Your task to perform on an android device: View the shopping cart on newegg.com. Add "razer naga" to the cart on newegg.com, then select checkout. Image 0: 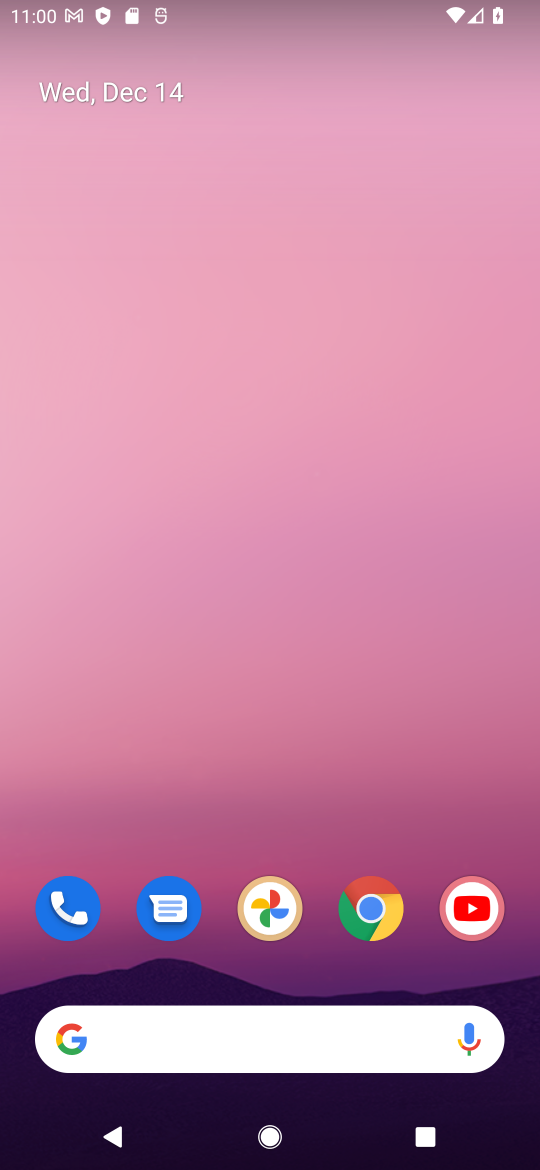
Step 0: click (372, 926)
Your task to perform on an android device: View the shopping cart on newegg.com. Add "razer naga" to the cart on newegg.com, then select checkout. Image 1: 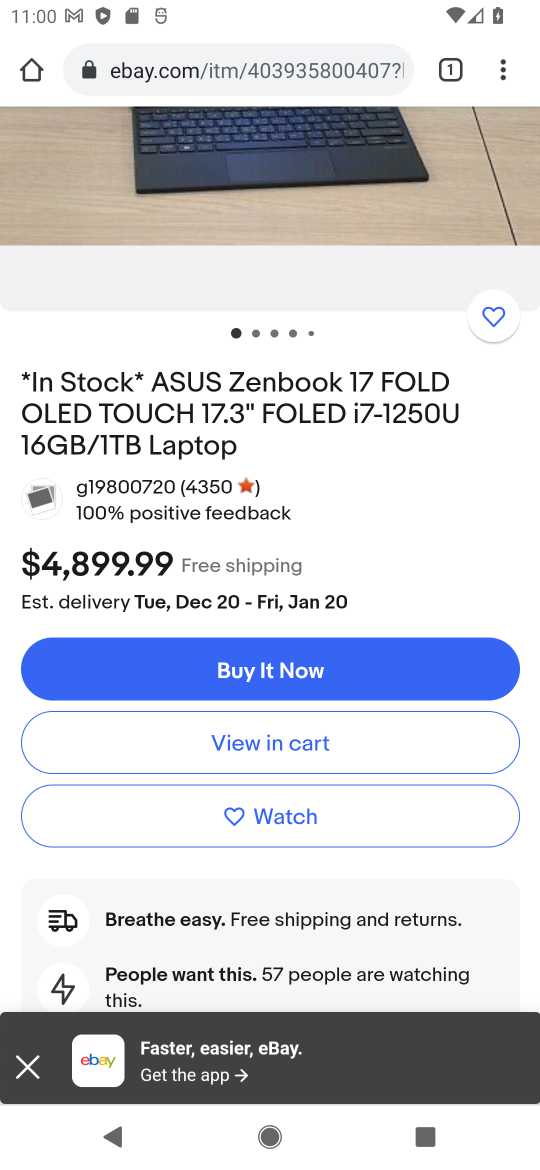
Step 1: click (225, 75)
Your task to perform on an android device: View the shopping cart on newegg.com. Add "razer naga" to the cart on newegg.com, then select checkout. Image 2: 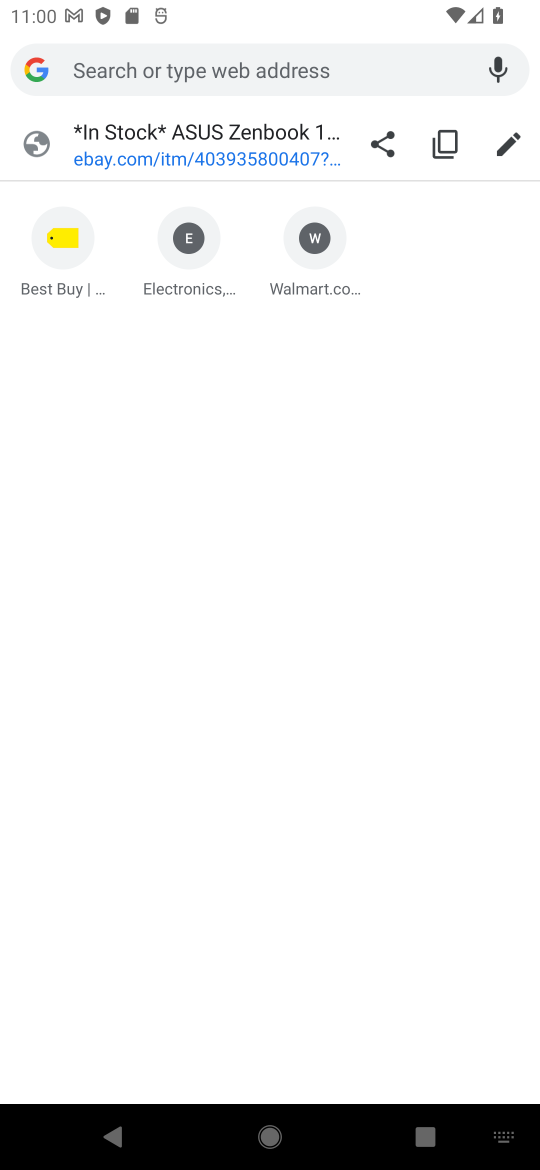
Step 2: type "newegg.com"
Your task to perform on an android device: View the shopping cart on newegg.com. Add "razer naga" to the cart on newegg.com, then select checkout. Image 3: 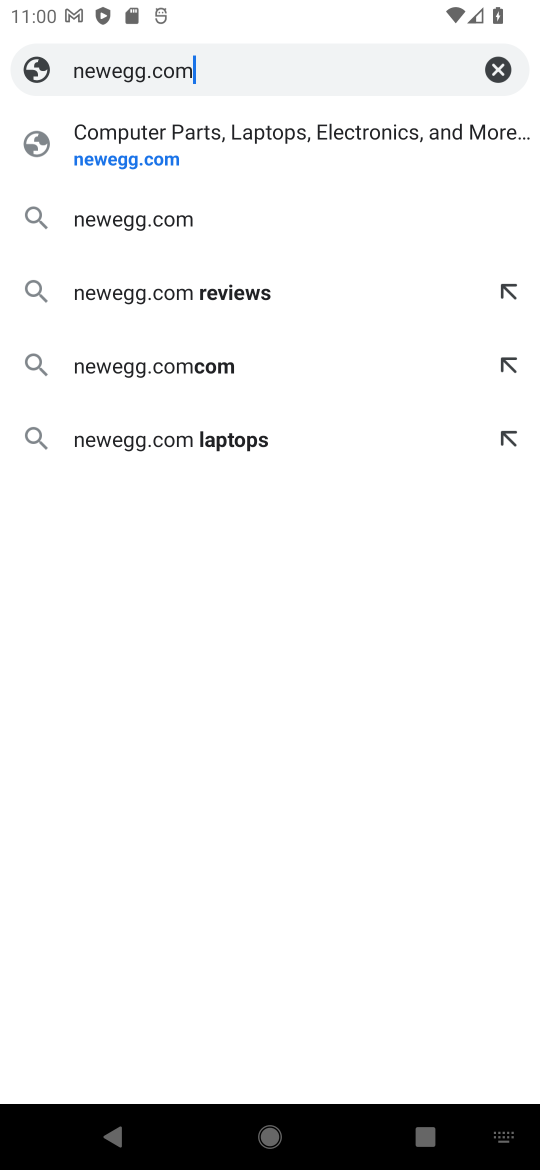
Step 3: click (129, 170)
Your task to perform on an android device: View the shopping cart on newegg.com. Add "razer naga" to the cart on newegg.com, then select checkout. Image 4: 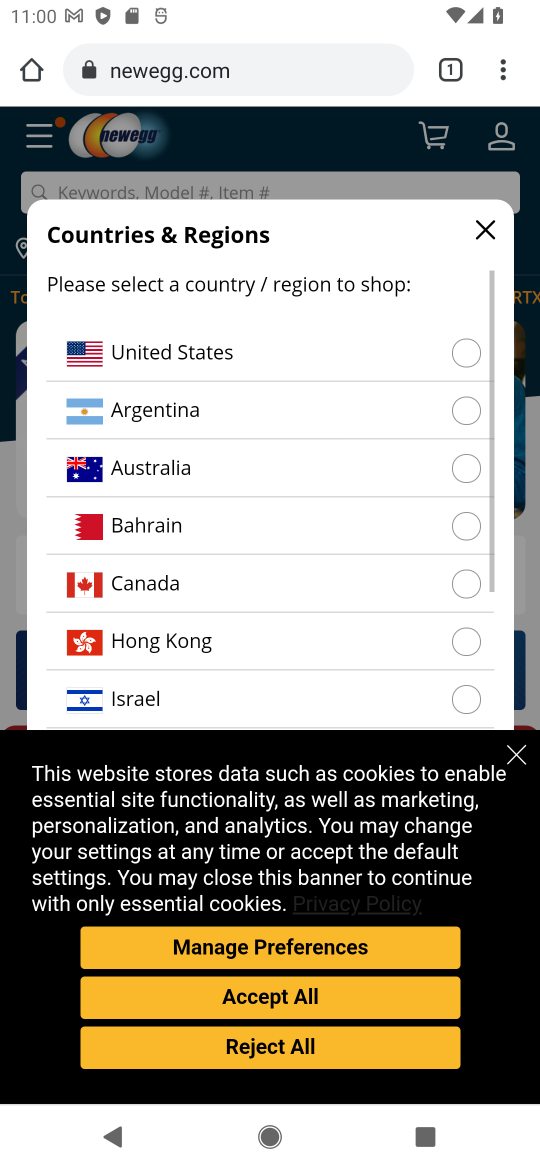
Step 4: click (517, 763)
Your task to perform on an android device: View the shopping cart on newegg.com. Add "razer naga" to the cart on newegg.com, then select checkout. Image 5: 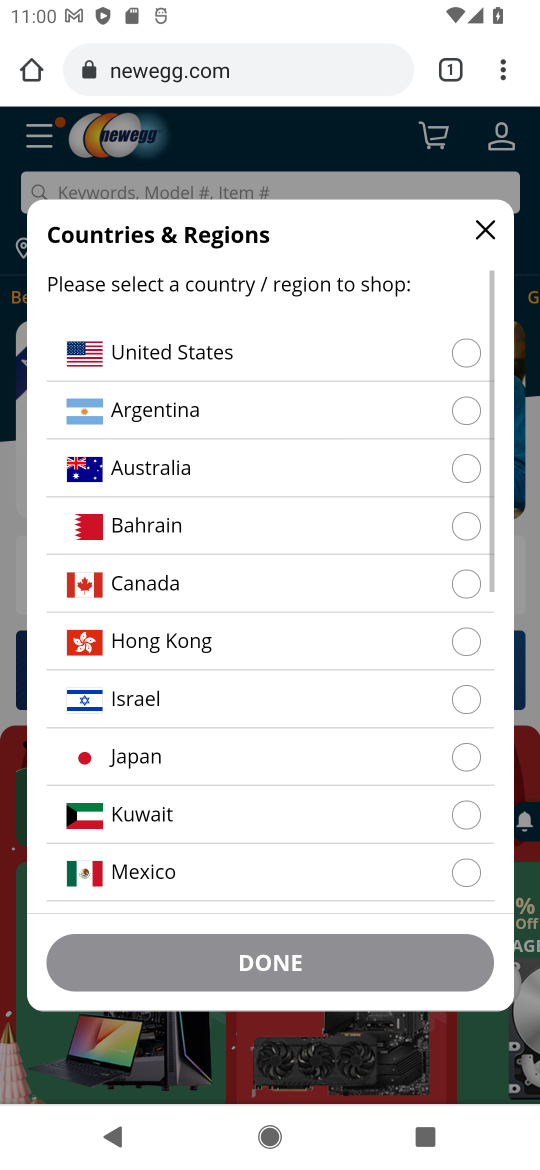
Step 5: click (104, 356)
Your task to perform on an android device: View the shopping cart on newegg.com. Add "razer naga" to the cart on newegg.com, then select checkout. Image 6: 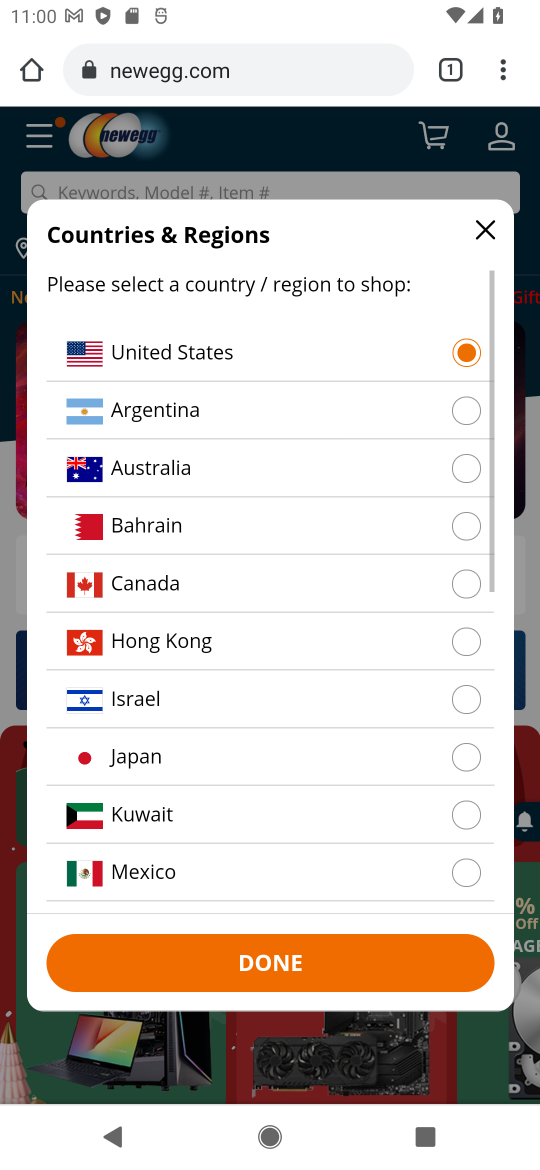
Step 6: click (292, 964)
Your task to perform on an android device: View the shopping cart on newegg.com. Add "razer naga" to the cart on newegg.com, then select checkout. Image 7: 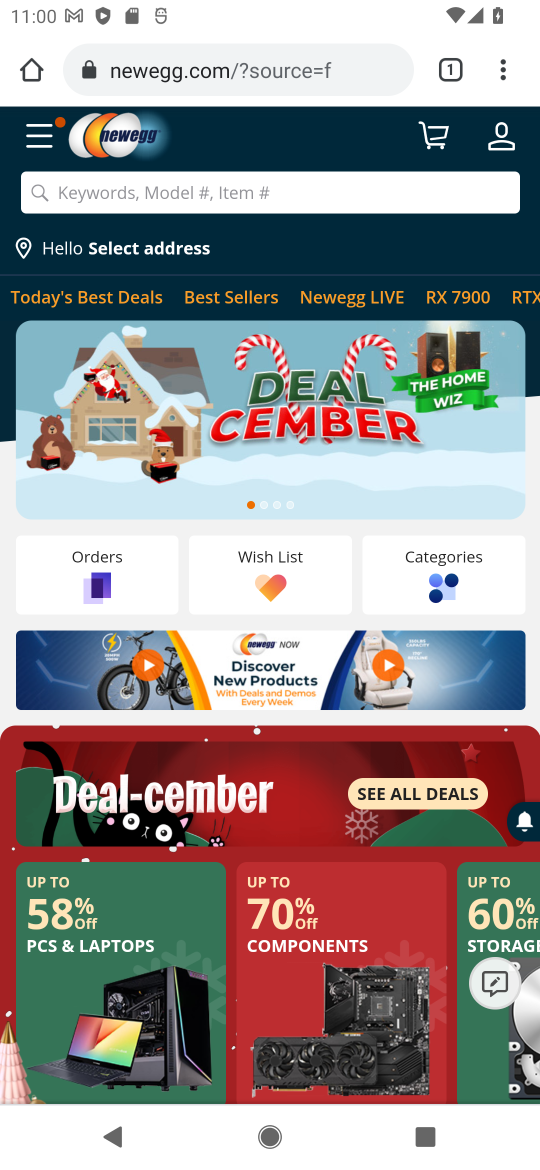
Step 7: click (435, 142)
Your task to perform on an android device: View the shopping cart on newegg.com. Add "razer naga" to the cart on newegg.com, then select checkout. Image 8: 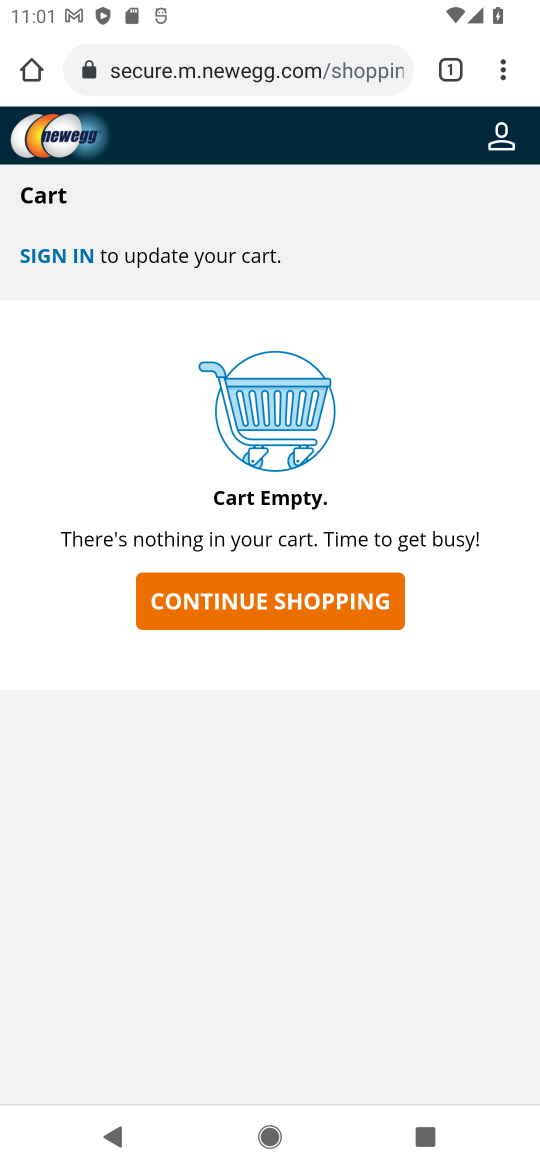
Step 8: click (279, 598)
Your task to perform on an android device: View the shopping cart on newegg.com. Add "razer naga" to the cart on newegg.com, then select checkout. Image 9: 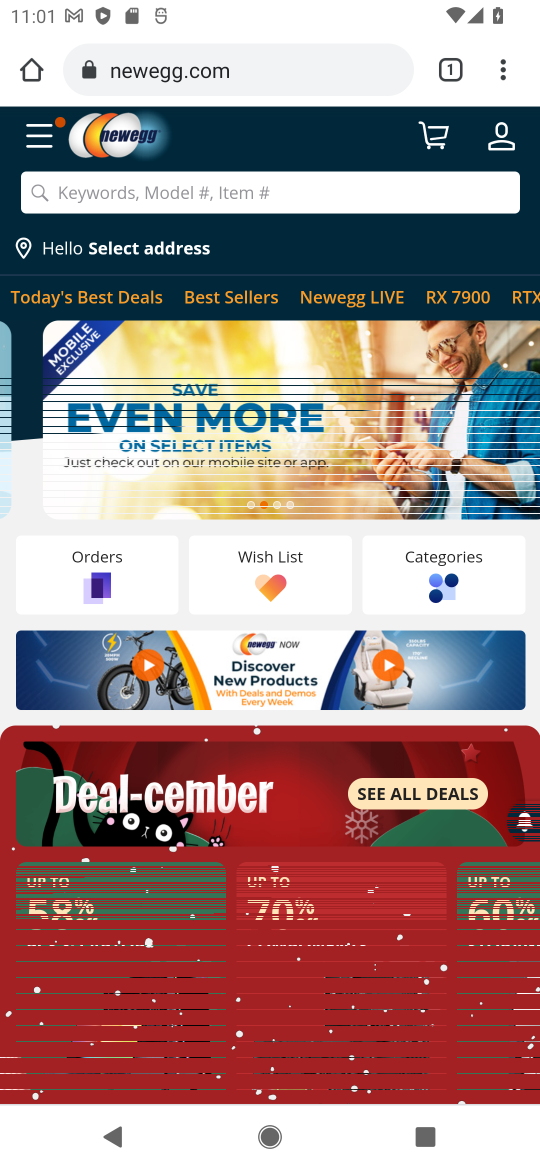
Step 9: click (111, 186)
Your task to perform on an android device: View the shopping cart on newegg.com. Add "razer naga" to the cart on newegg.com, then select checkout. Image 10: 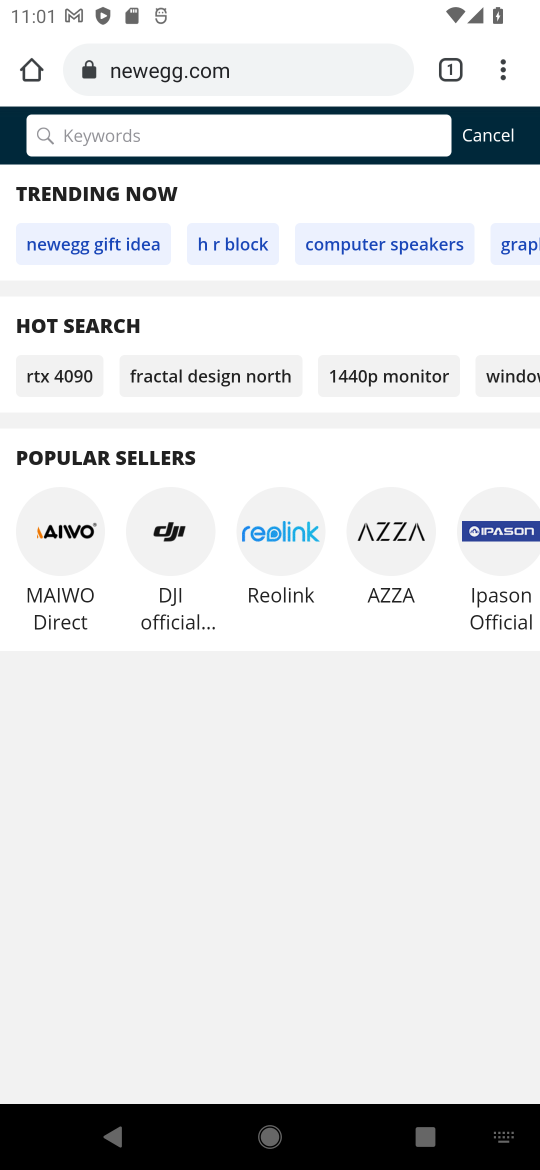
Step 10: type "razer naga"
Your task to perform on an android device: View the shopping cart on newegg.com. Add "razer naga" to the cart on newegg.com, then select checkout. Image 11: 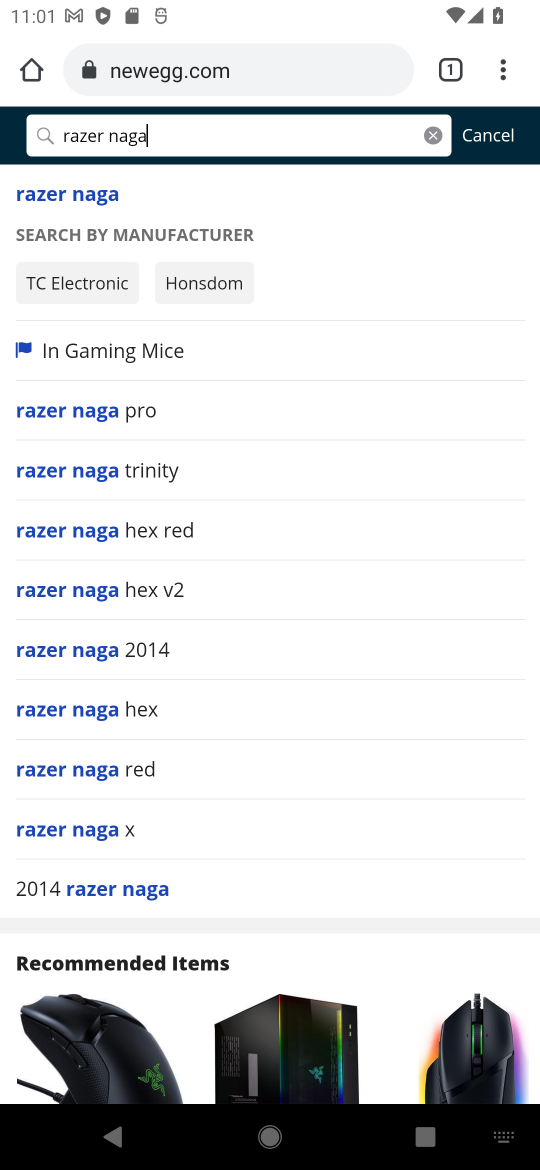
Step 11: click (91, 197)
Your task to perform on an android device: View the shopping cart on newegg.com. Add "razer naga" to the cart on newegg.com, then select checkout. Image 12: 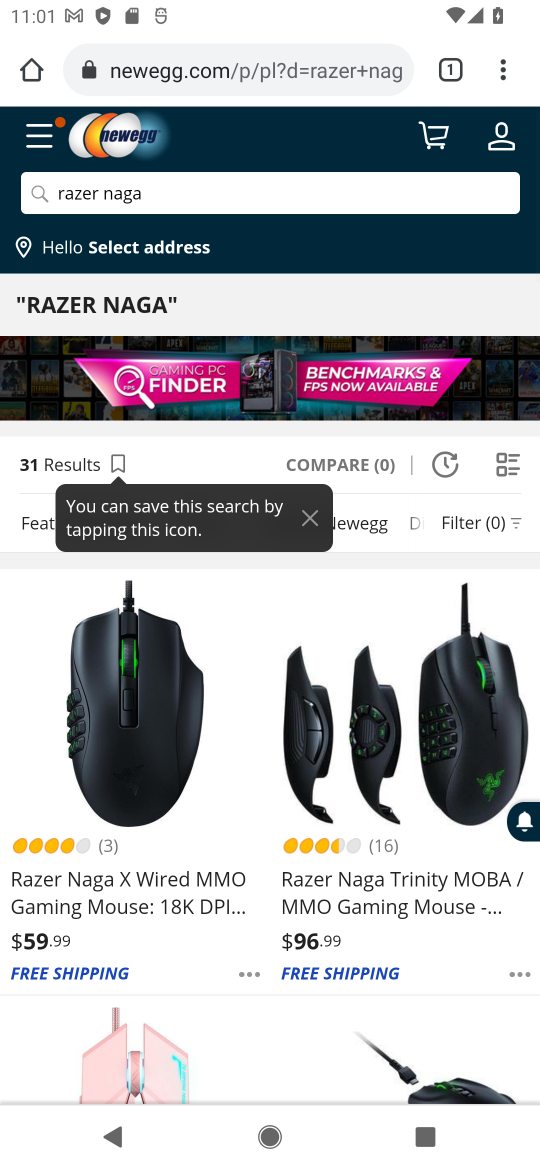
Step 12: drag from (226, 774) to (217, 328)
Your task to perform on an android device: View the shopping cart on newegg.com. Add "razer naga" to the cart on newegg.com, then select checkout. Image 13: 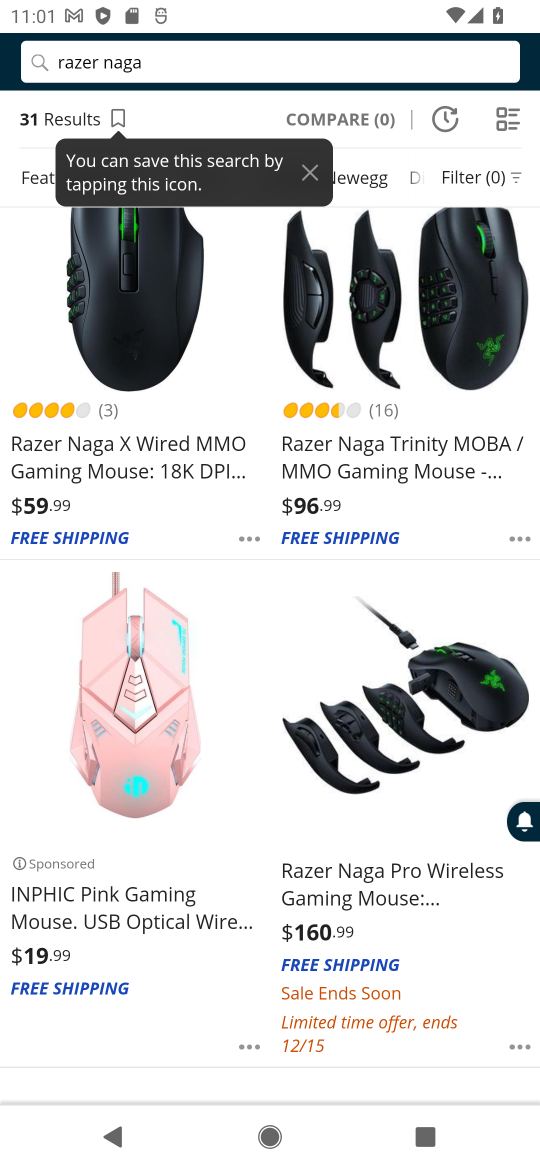
Step 13: click (63, 475)
Your task to perform on an android device: View the shopping cart on newegg.com. Add "razer naga" to the cart on newegg.com, then select checkout. Image 14: 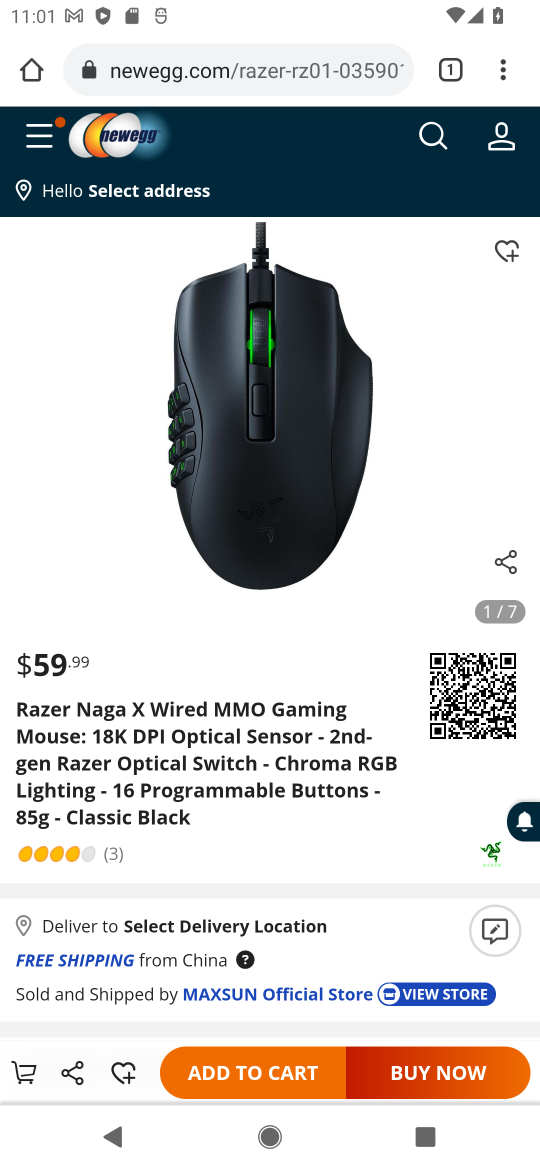
Step 14: click (245, 1078)
Your task to perform on an android device: View the shopping cart on newegg.com. Add "razer naga" to the cart on newegg.com, then select checkout. Image 15: 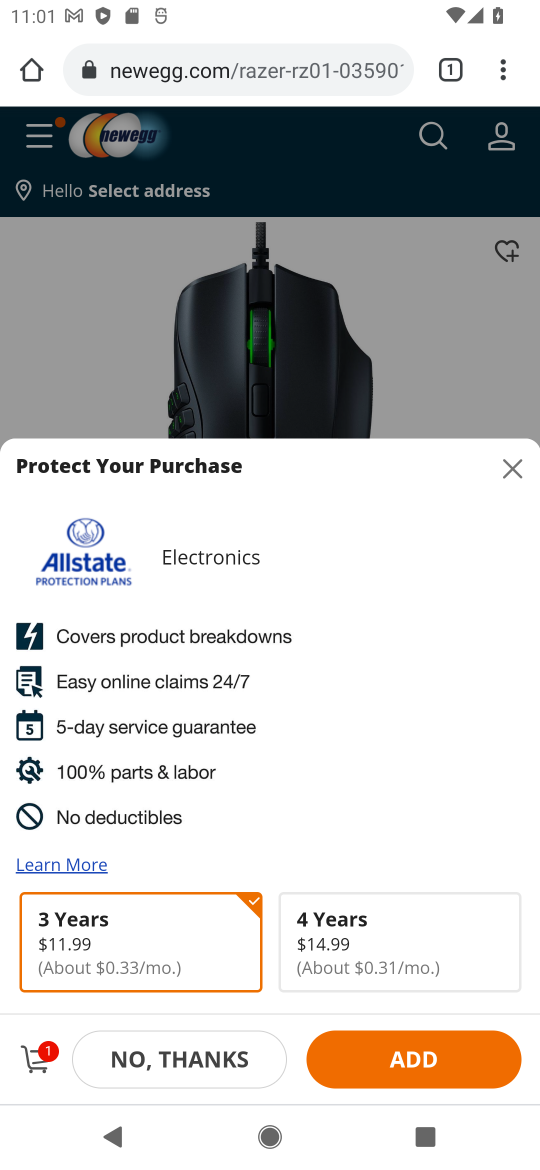
Step 15: click (46, 1061)
Your task to perform on an android device: View the shopping cart on newegg.com. Add "razer naga" to the cart on newegg.com, then select checkout. Image 16: 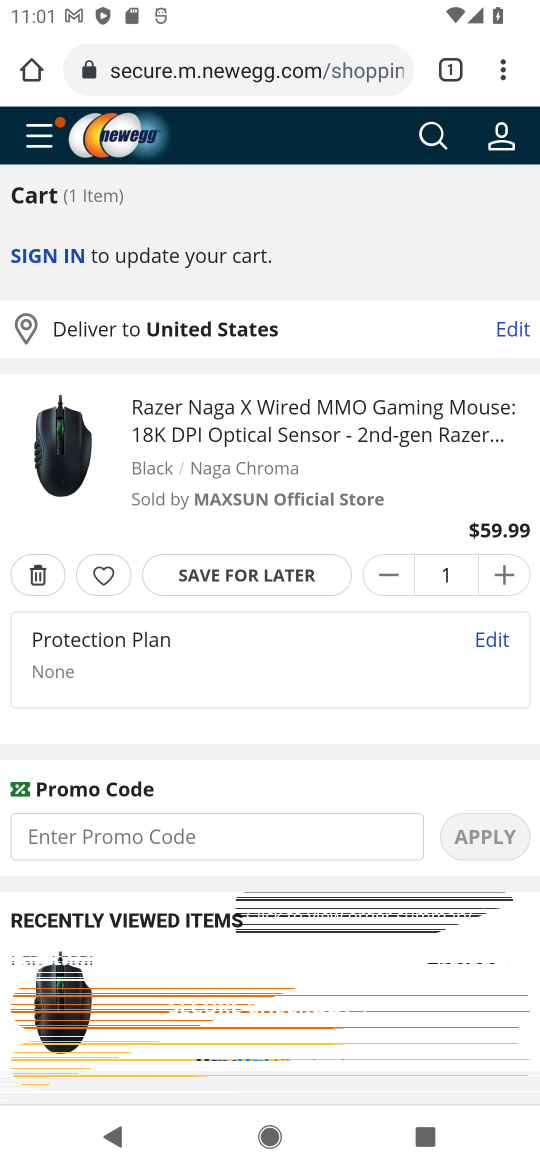
Step 16: click (179, 983)
Your task to perform on an android device: View the shopping cart on newegg.com. Add "razer naga" to the cart on newegg.com, then select checkout. Image 17: 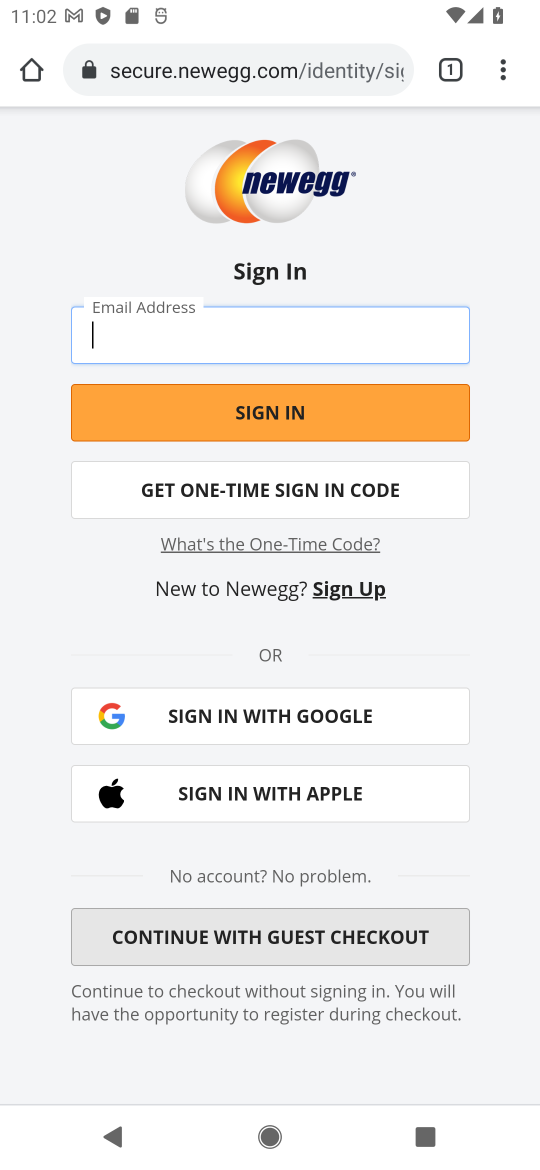
Step 17: task complete